Your task to perform on an android device: read, delete, or share a saved page in the chrome app Image 0: 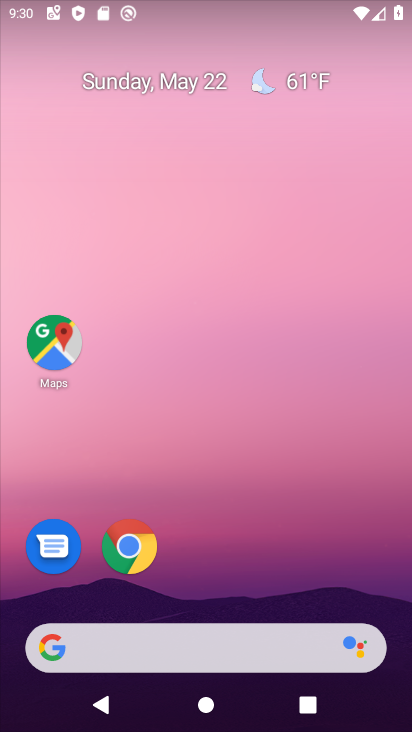
Step 0: click (131, 550)
Your task to perform on an android device: read, delete, or share a saved page in the chrome app Image 1: 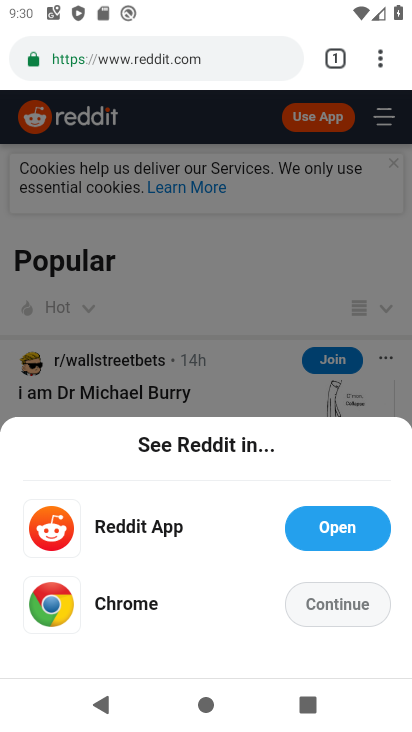
Step 1: click (381, 55)
Your task to perform on an android device: read, delete, or share a saved page in the chrome app Image 2: 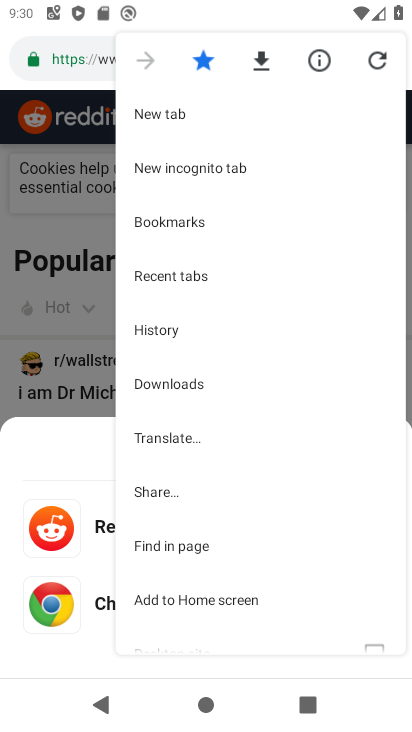
Step 2: click (178, 386)
Your task to perform on an android device: read, delete, or share a saved page in the chrome app Image 3: 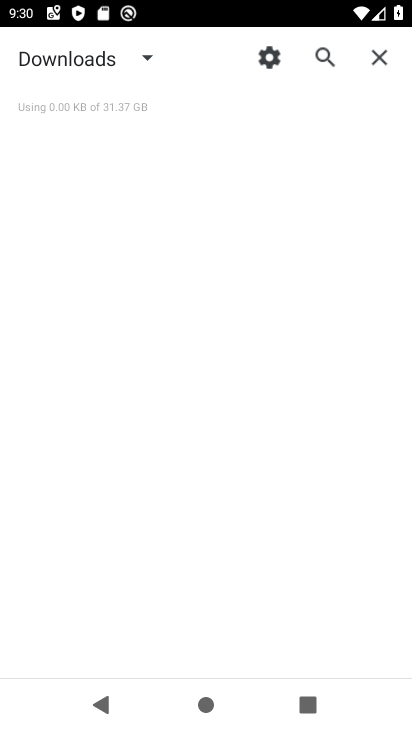
Step 3: click (148, 55)
Your task to perform on an android device: read, delete, or share a saved page in the chrome app Image 4: 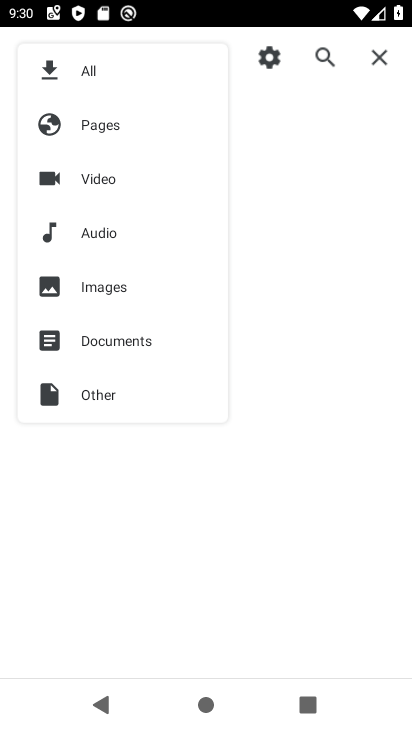
Step 4: click (94, 120)
Your task to perform on an android device: read, delete, or share a saved page in the chrome app Image 5: 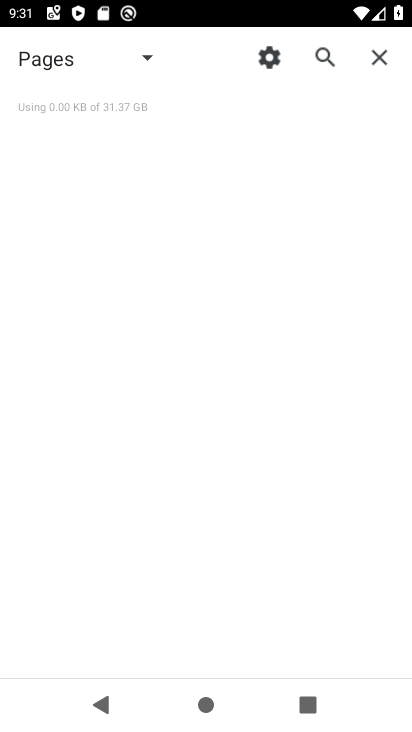
Step 5: click (146, 56)
Your task to perform on an android device: read, delete, or share a saved page in the chrome app Image 6: 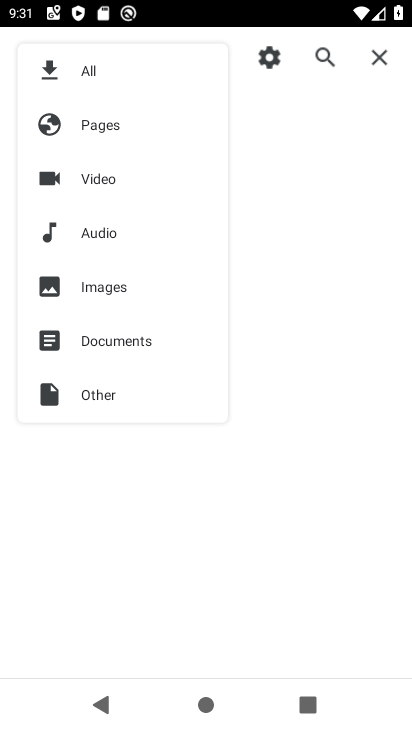
Step 6: click (146, 56)
Your task to perform on an android device: read, delete, or share a saved page in the chrome app Image 7: 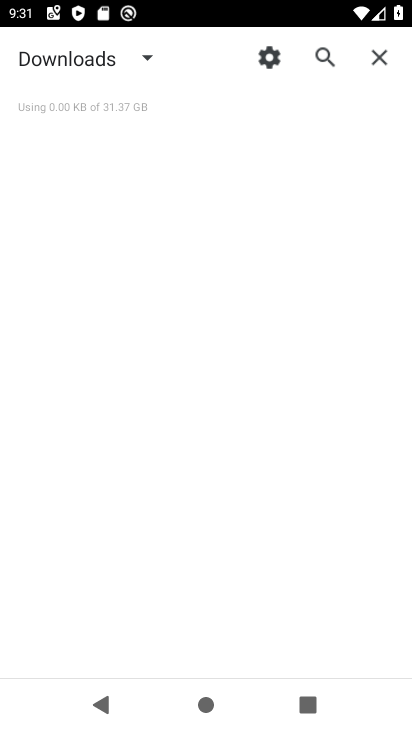
Step 7: task complete